Your task to perform on an android device: Do I have any events this weekend? Image 0: 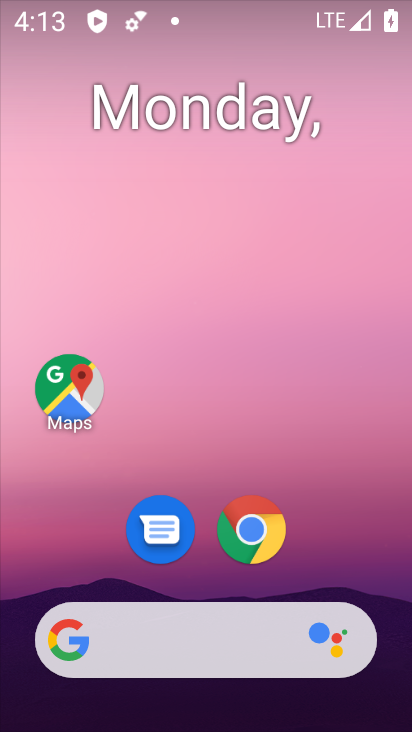
Step 0: drag from (306, 565) to (302, 59)
Your task to perform on an android device: Do I have any events this weekend? Image 1: 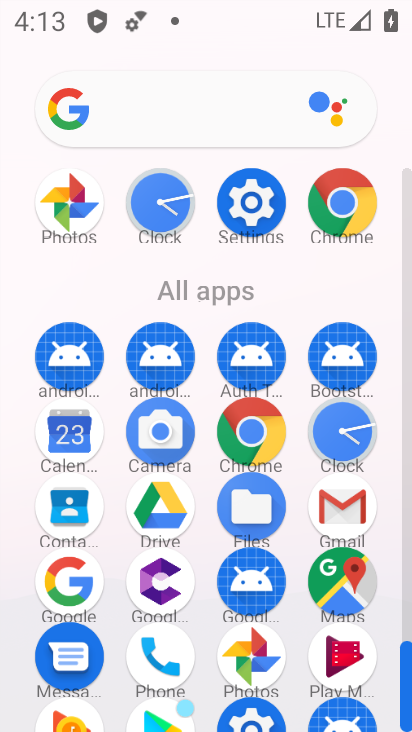
Step 1: click (72, 445)
Your task to perform on an android device: Do I have any events this weekend? Image 2: 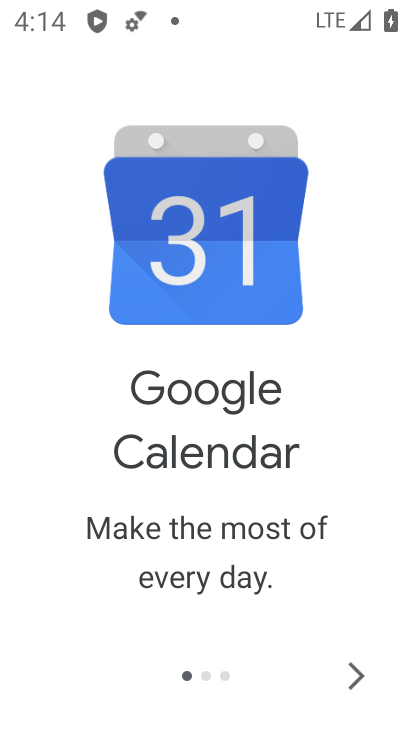
Step 2: click (341, 669)
Your task to perform on an android device: Do I have any events this weekend? Image 3: 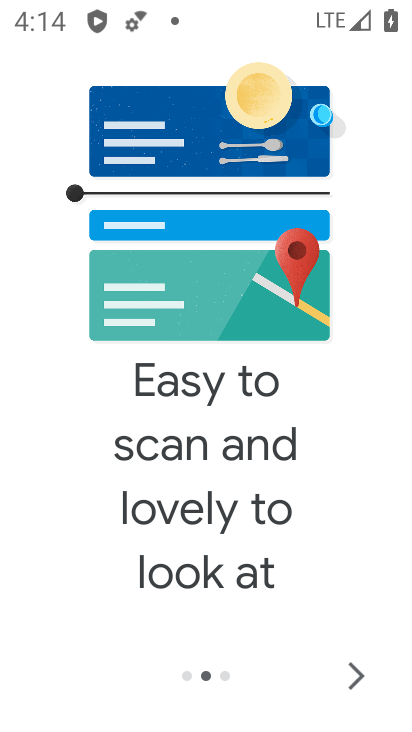
Step 3: click (341, 669)
Your task to perform on an android device: Do I have any events this weekend? Image 4: 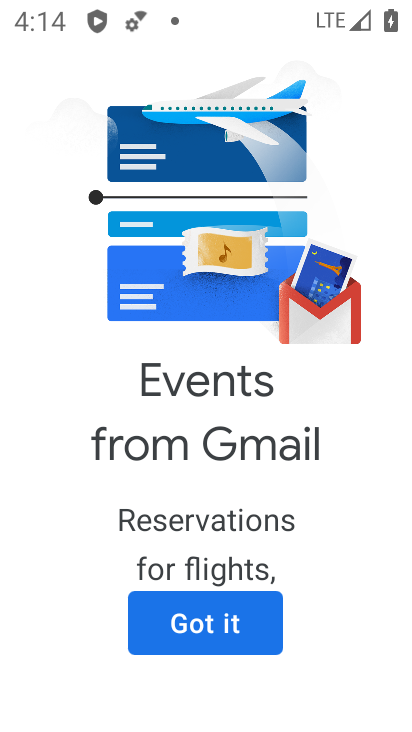
Step 4: click (249, 631)
Your task to perform on an android device: Do I have any events this weekend? Image 5: 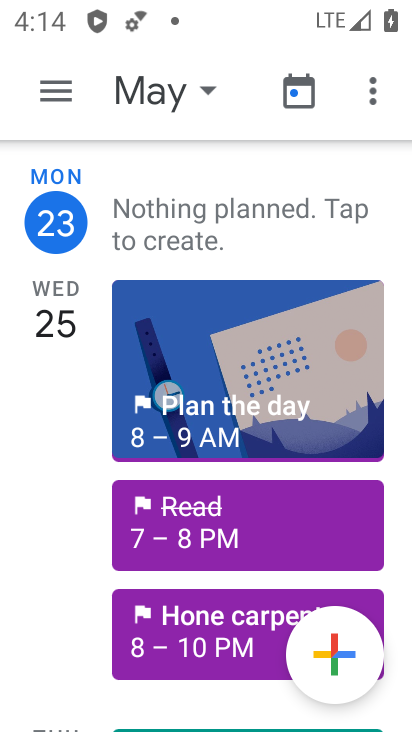
Step 5: click (152, 84)
Your task to perform on an android device: Do I have any events this weekend? Image 6: 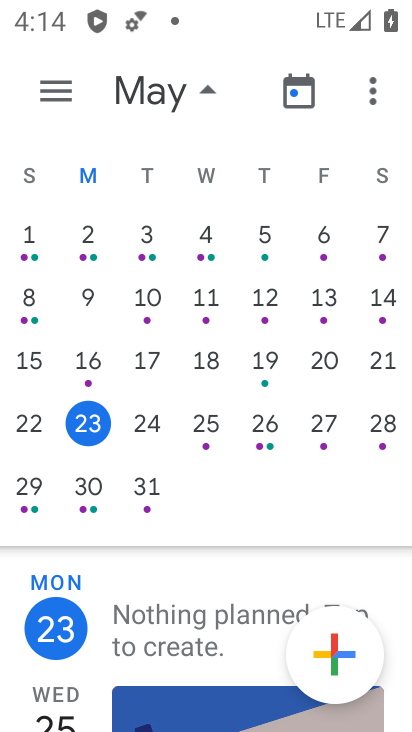
Step 6: click (373, 435)
Your task to perform on an android device: Do I have any events this weekend? Image 7: 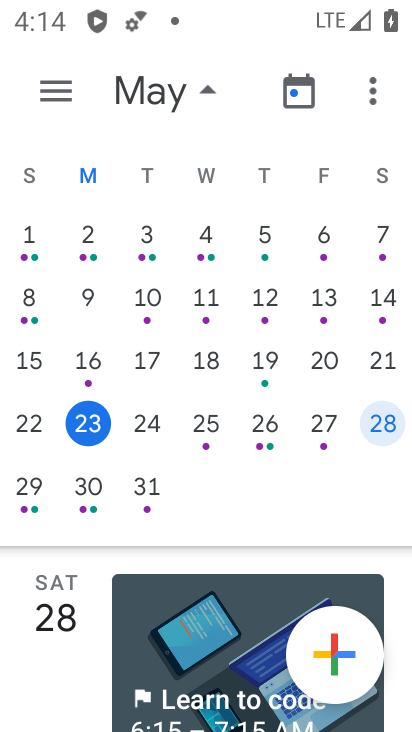
Step 7: task complete